Your task to perform on an android device: Open display settings Image 0: 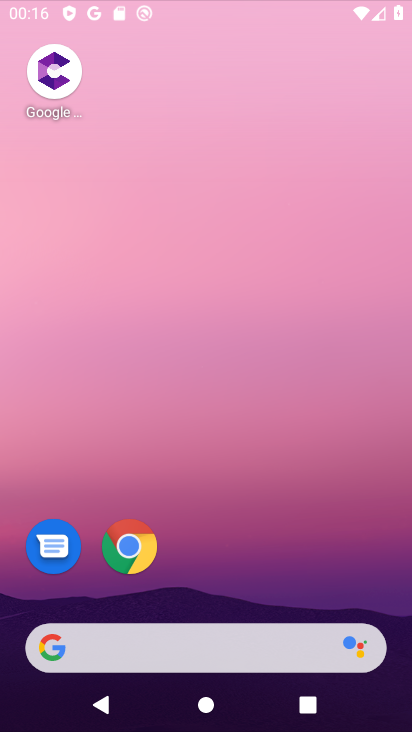
Step 0: click (309, 134)
Your task to perform on an android device: Open display settings Image 1: 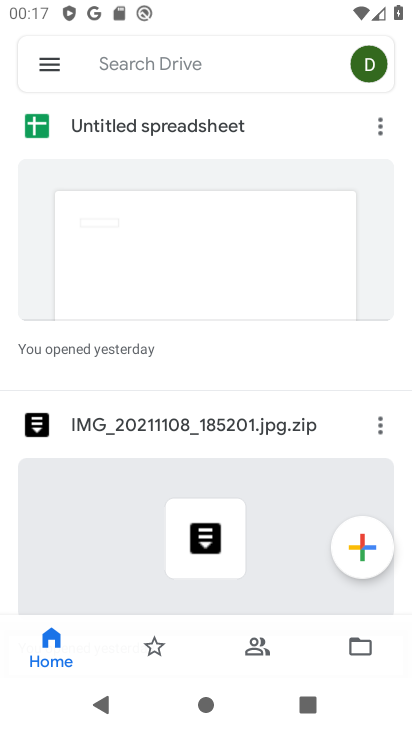
Step 1: press home button
Your task to perform on an android device: Open display settings Image 2: 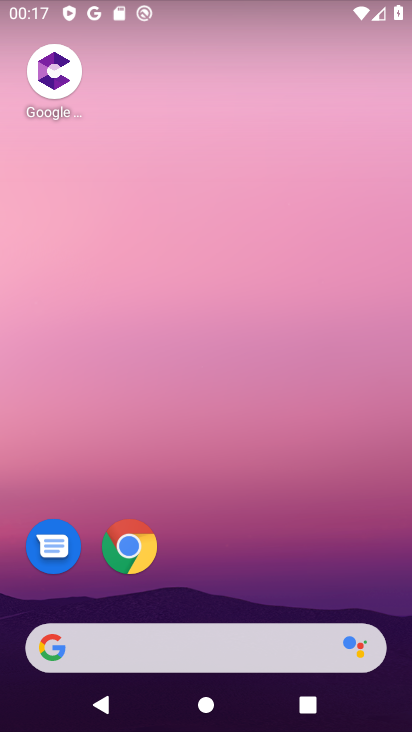
Step 2: drag from (366, 592) to (322, 145)
Your task to perform on an android device: Open display settings Image 3: 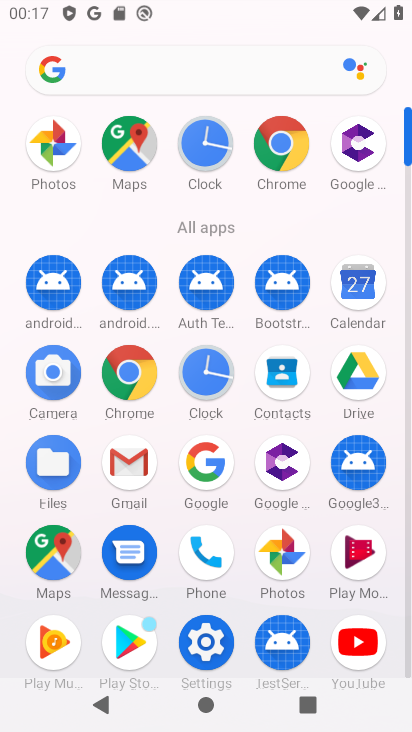
Step 3: click (216, 667)
Your task to perform on an android device: Open display settings Image 4: 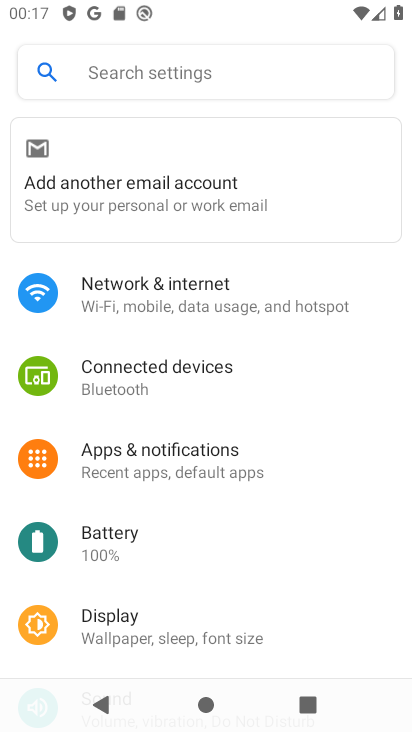
Step 4: click (174, 610)
Your task to perform on an android device: Open display settings Image 5: 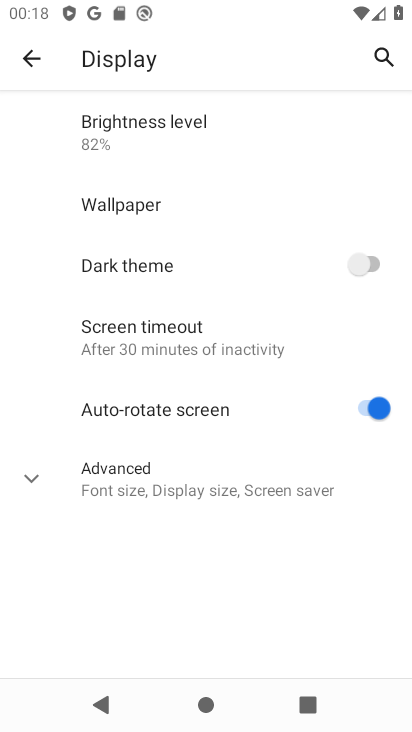
Step 5: click (20, 473)
Your task to perform on an android device: Open display settings Image 6: 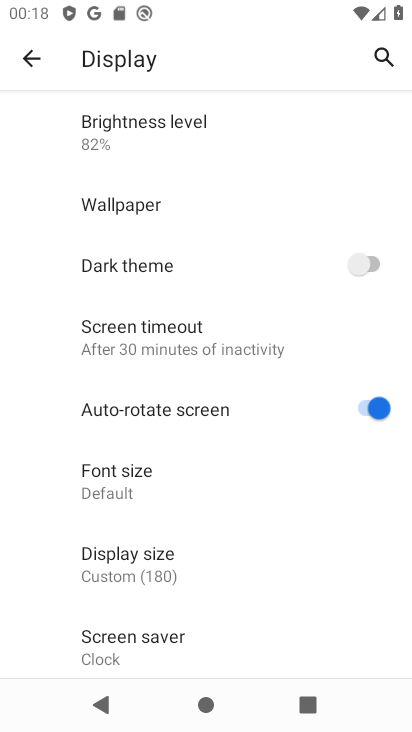
Step 6: task complete